Your task to perform on an android device: toggle priority inbox in the gmail app Image 0: 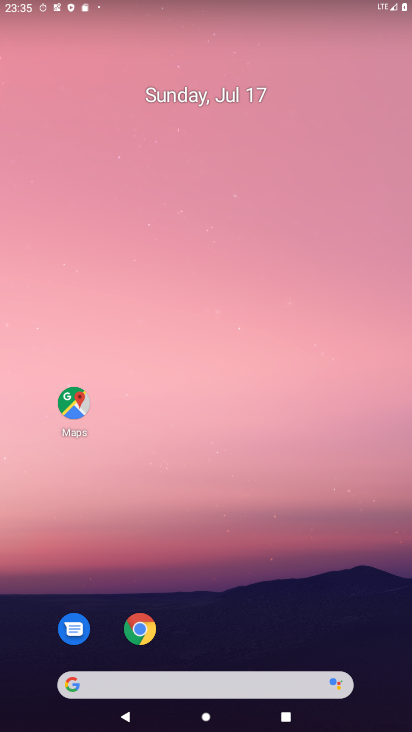
Step 0: drag from (230, 675) to (229, 128)
Your task to perform on an android device: toggle priority inbox in the gmail app Image 1: 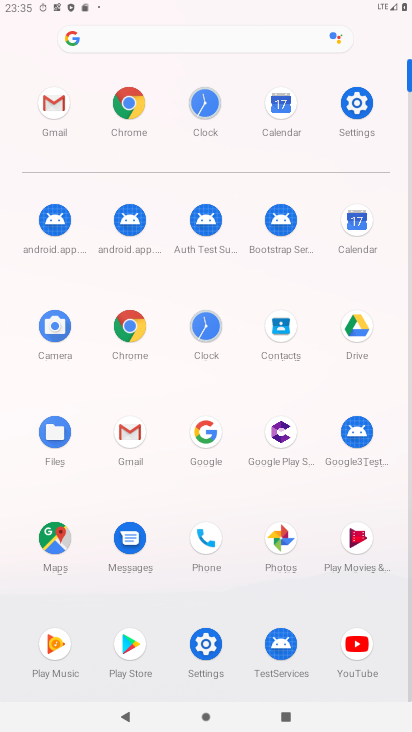
Step 1: click (125, 433)
Your task to perform on an android device: toggle priority inbox in the gmail app Image 2: 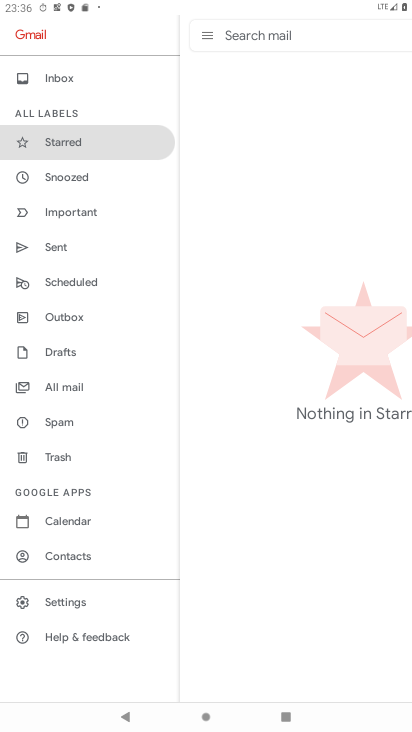
Step 2: click (69, 603)
Your task to perform on an android device: toggle priority inbox in the gmail app Image 3: 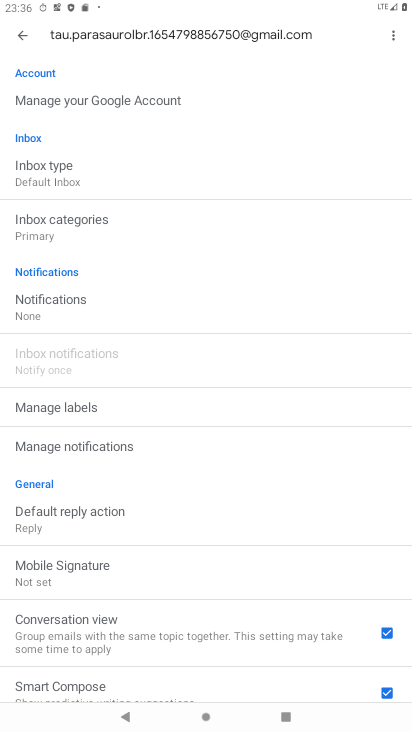
Step 3: click (44, 175)
Your task to perform on an android device: toggle priority inbox in the gmail app Image 4: 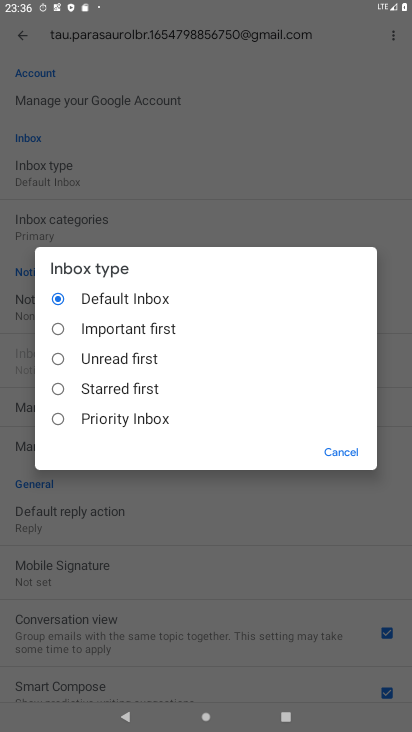
Step 4: click (60, 418)
Your task to perform on an android device: toggle priority inbox in the gmail app Image 5: 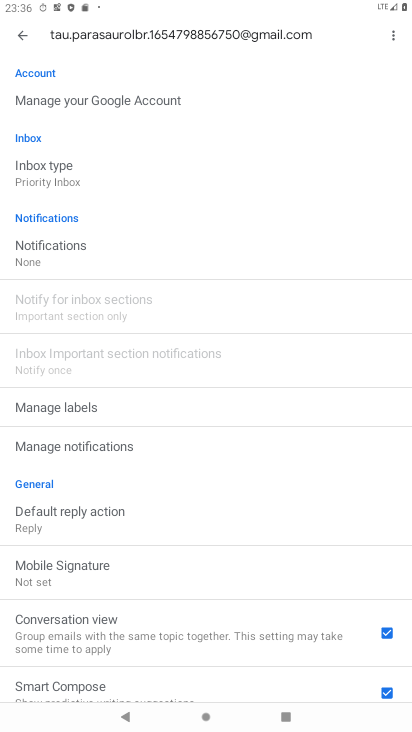
Step 5: task complete